Your task to perform on an android device: open app "Paramount+ | Peak Streaming" Image 0: 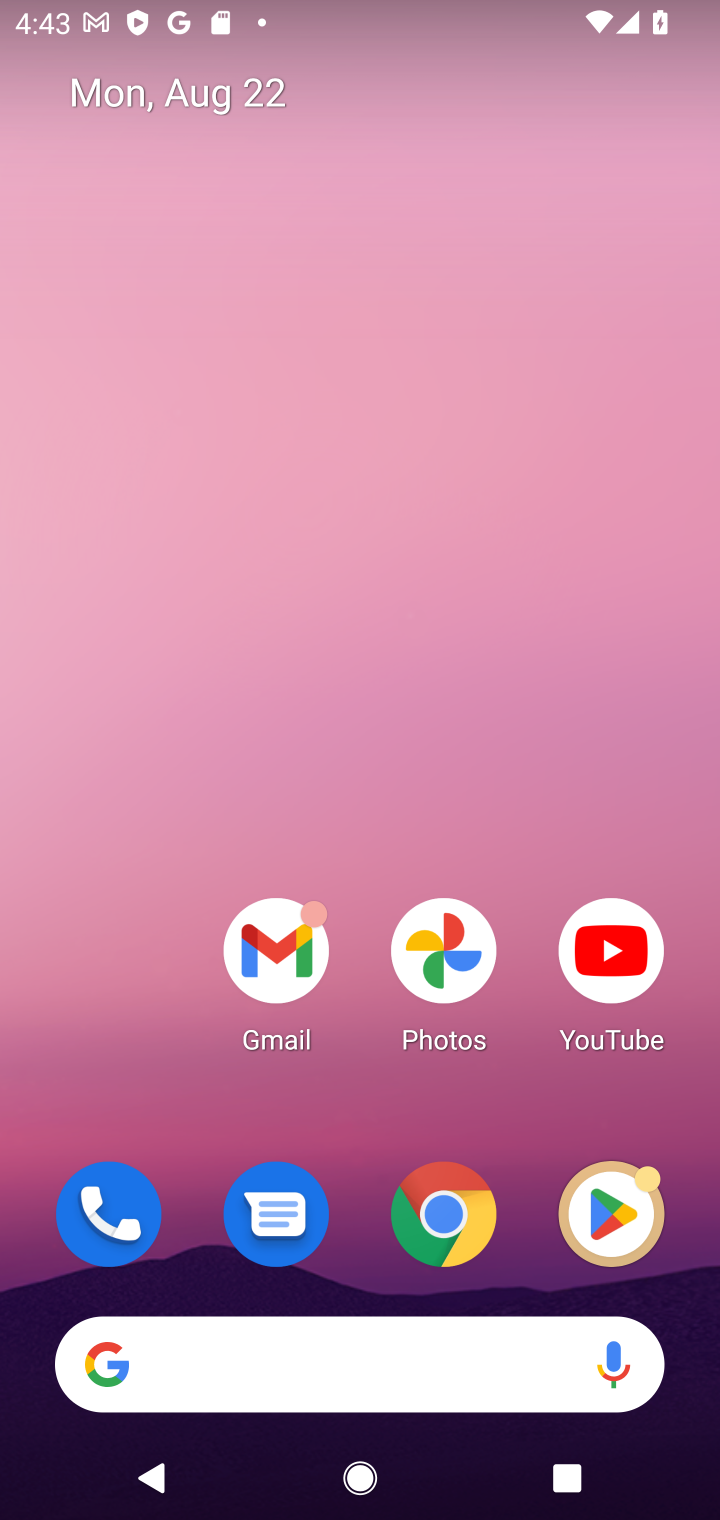
Step 0: click (616, 1214)
Your task to perform on an android device: open app "Paramount+ | Peak Streaming" Image 1: 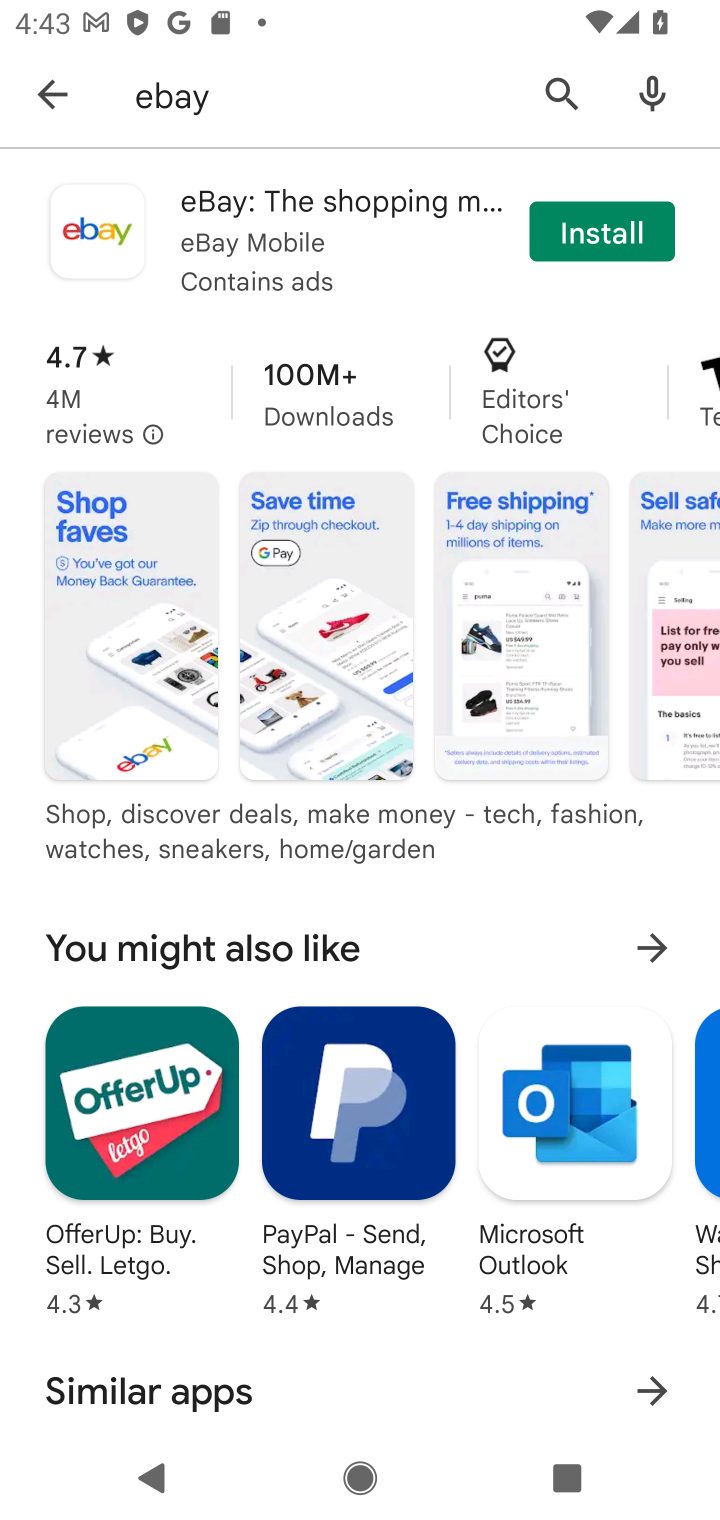
Step 1: click (547, 87)
Your task to perform on an android device: open app "Paramount+ | Peak Streaming" Image 2: 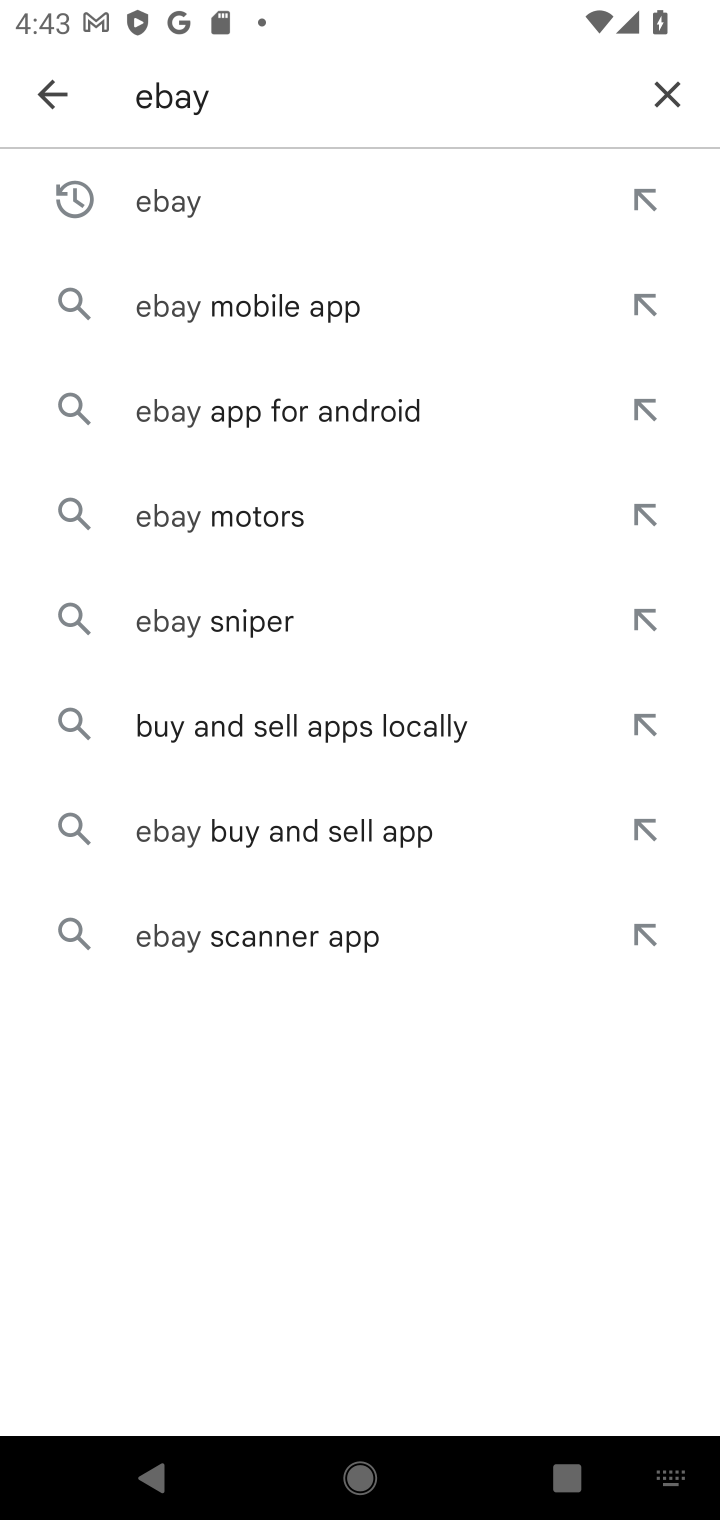
Step 2: click (673, 92)
Your task to perform on an android device: open app "Paramount+ | Peak Streaming" Image 3: 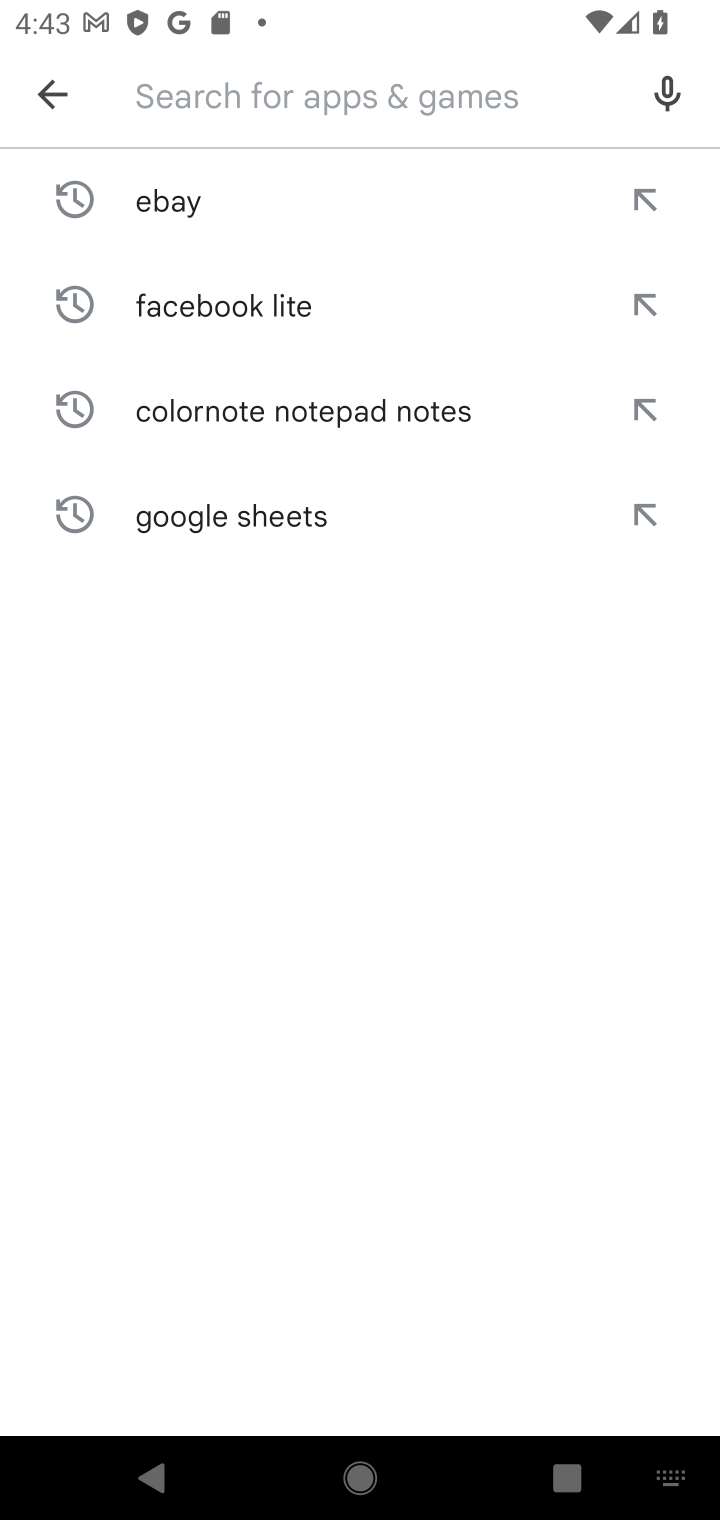
Step 3: type "paramount+"
Your task to perform on an android device: open app "Paramount+ | Peak Streaming" Image 4: 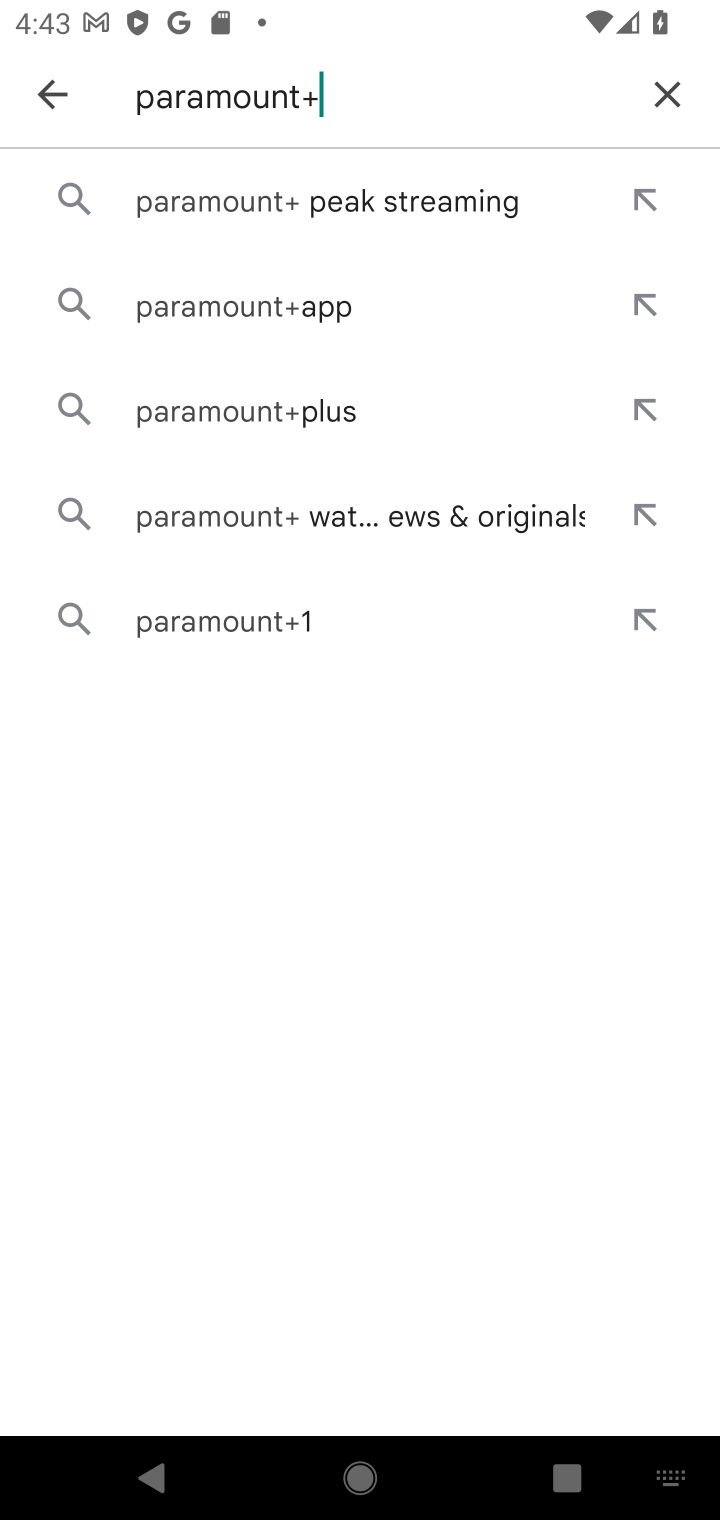
Step 4: click (224, 196)
Your task to perform on an android device: open app "Paramount+ | Peak Streaming" Image 5: 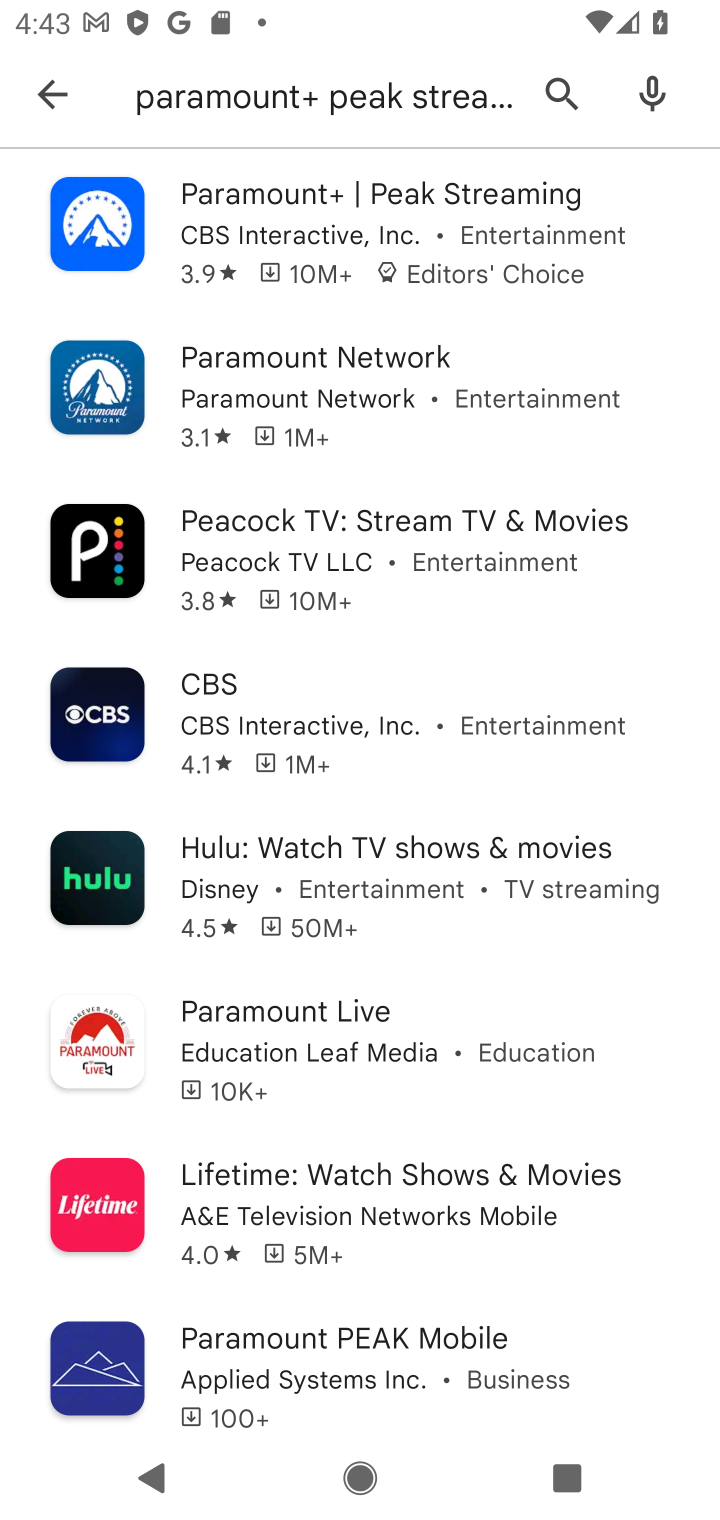
Step 5: click (280, 203)
Your task to perform on an android device: open app "Paramount+ | Peak Streaming" Image 6: 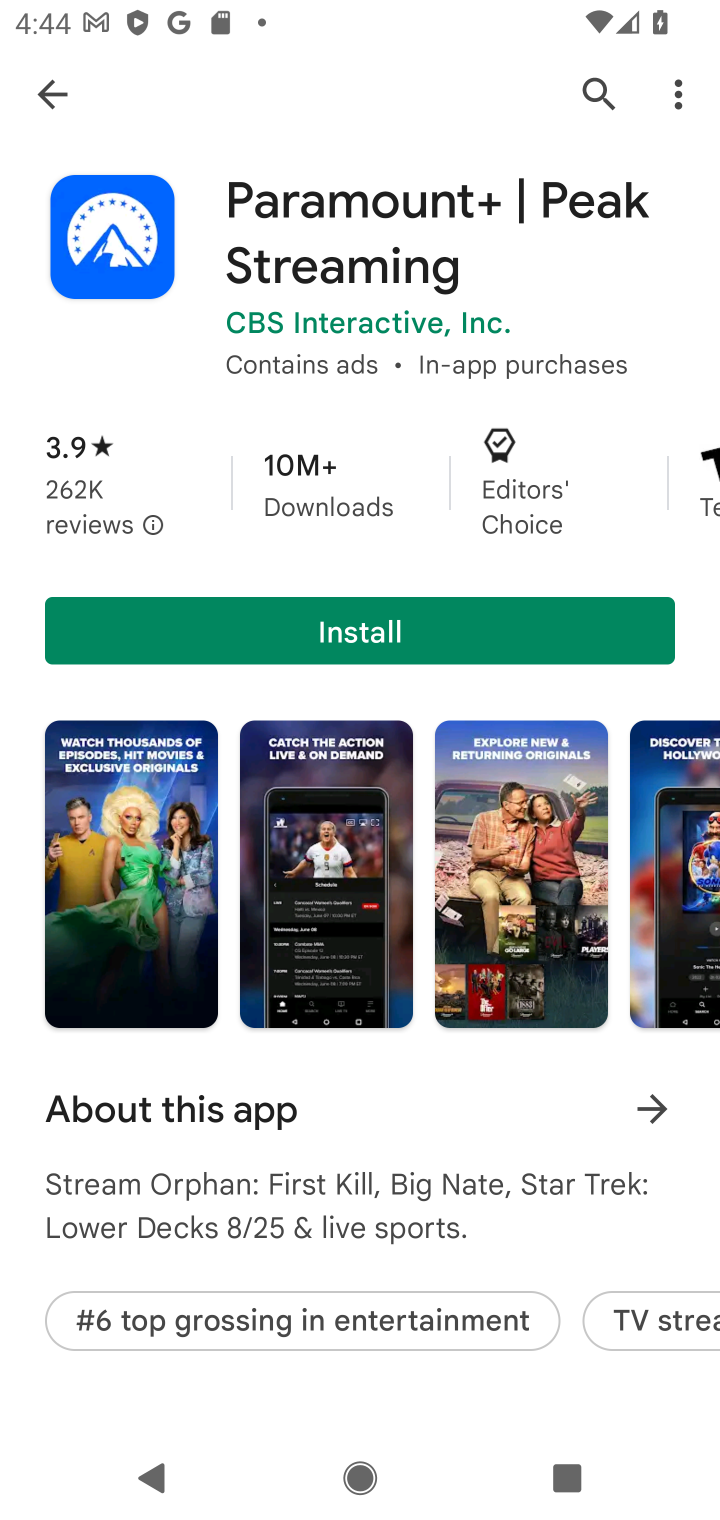
Step 6: task complete